Your task to perform on an android device: What is the recent news? Image 0: 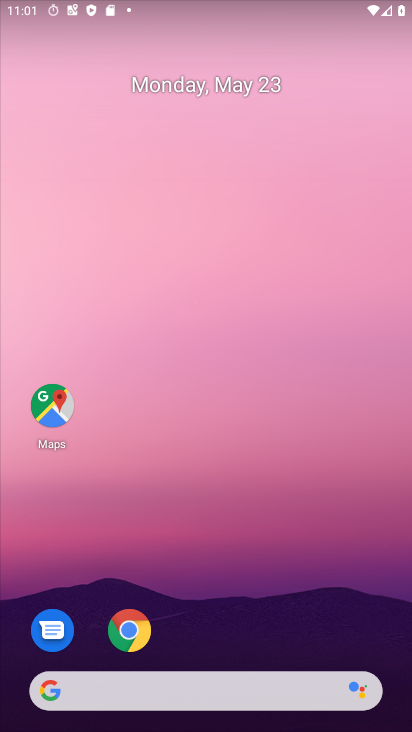
Step 0: click (90, 689)
Your task to perform on an android device: What is the recent news? Image 1: 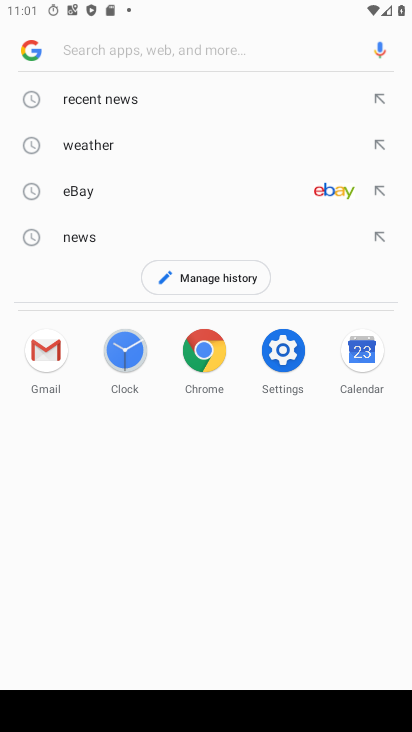
Step 1: click (91, 103)
Your task to perform on an android device: What is the recent news? Image 2: 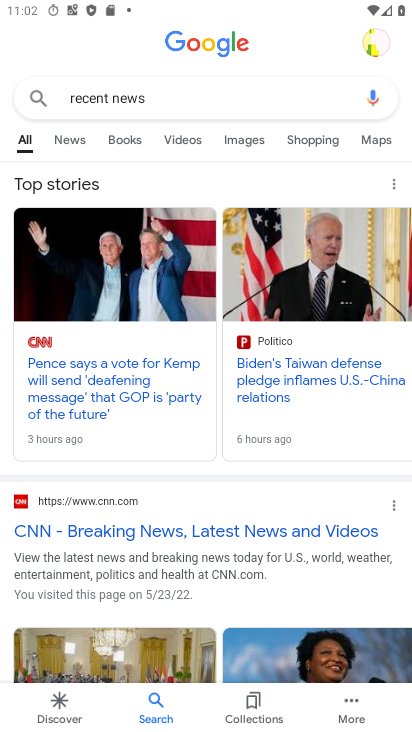
Step 2: click (67, 138)
Your task to perform on an android device: What is the recent news? Image 3: 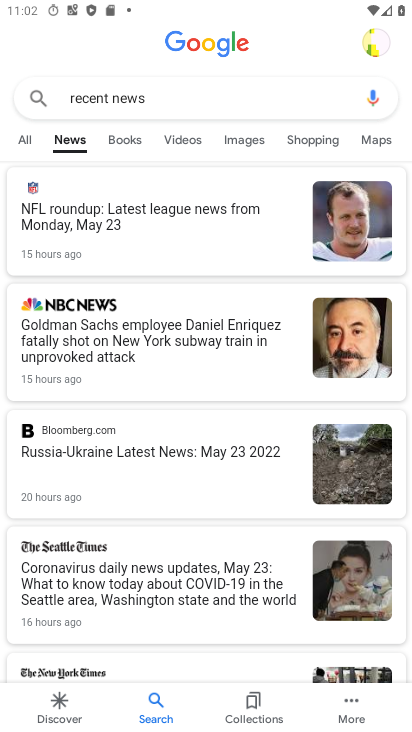
Step 3: drag from (145, 546) to (141, 235)
Your task to perform on an android device: What is the recent news? Image 4: 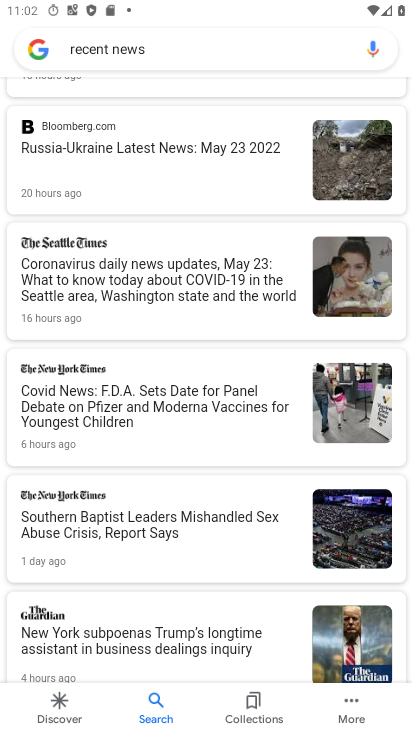
Step 4: drag from (99, 537) to (107, 251)
Your task to perform on an android device: What is the recent news? Image 5: 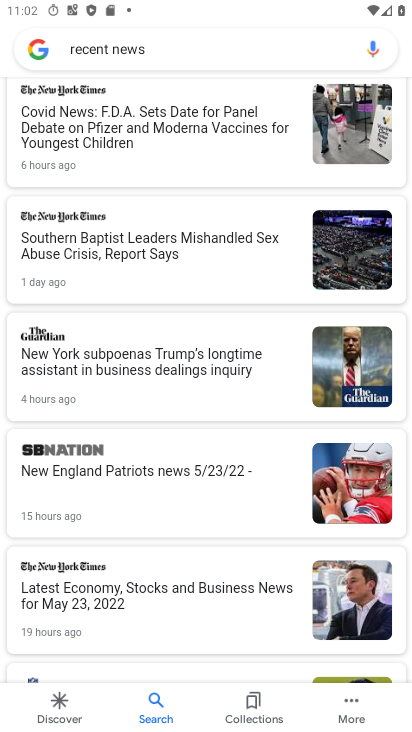
Step 5: click (70, 391)
Your task to perform on an android device: What is the recent news? Image 6: 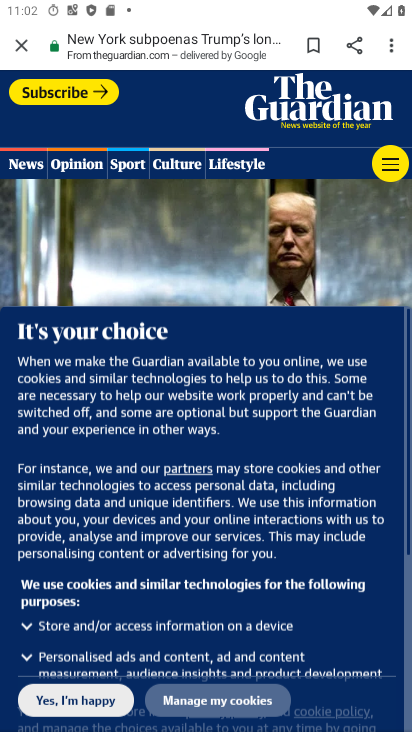
Step 6: task complete